Your task to perform on an android device: turn on bluetooth scan Image 0: 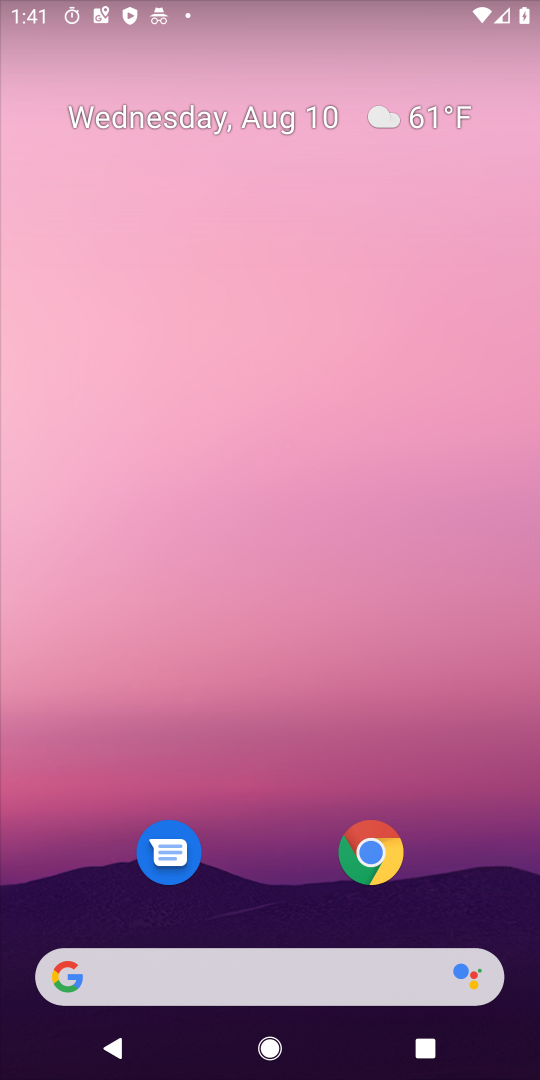
Step 0: drag from (241, 570) to (313, 25)
Your task to perform on an android device: turn on bluetooth scan Image 1: 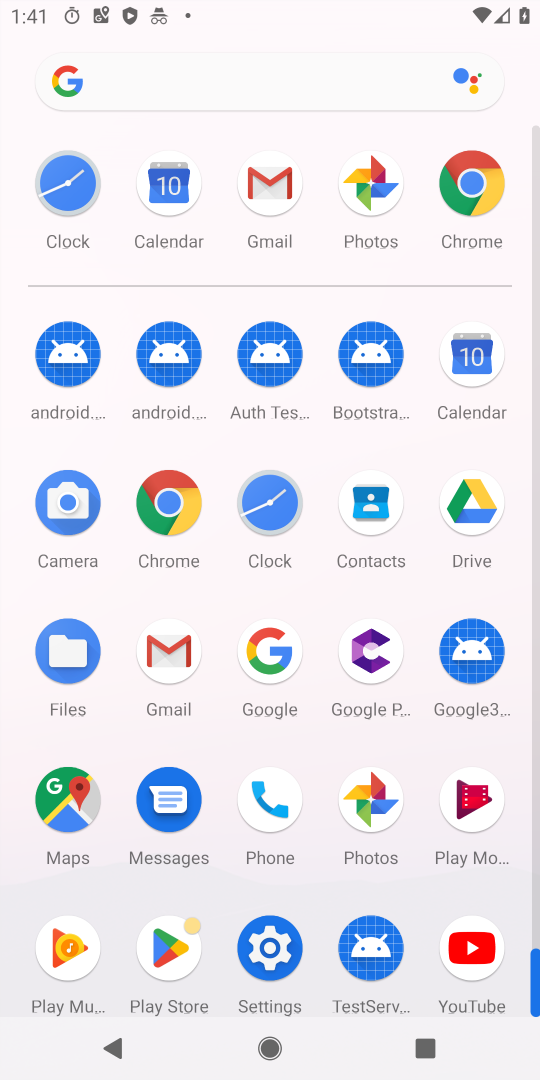
Step 1: click (272, 935)
Your task to perform on an android device: turn on bluetooth scan Image 2: 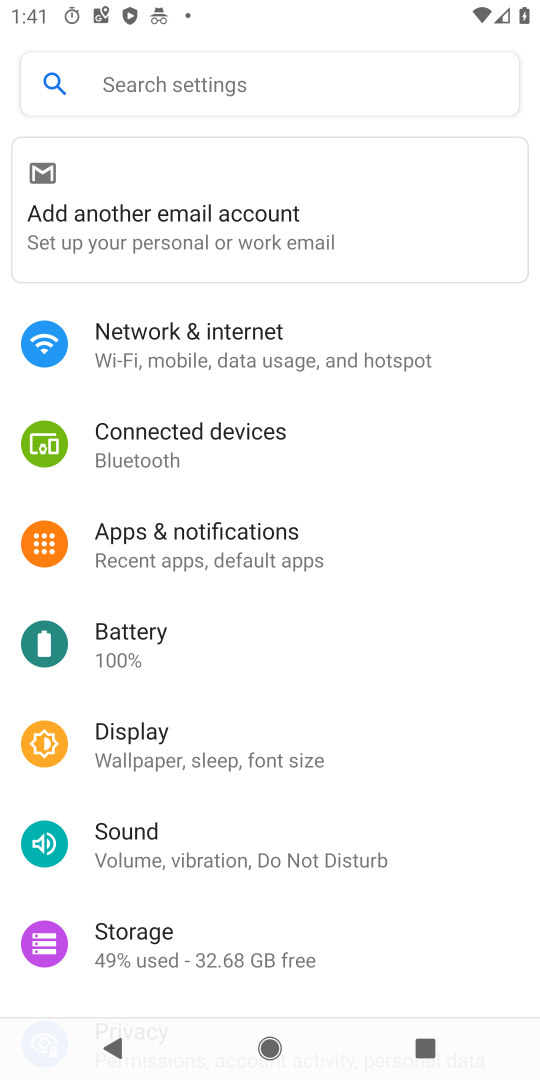
Step 2: drag from (340, 941) to (317, 399)
Your task to perform on an android device: turn on bluetooth scan Image 3: 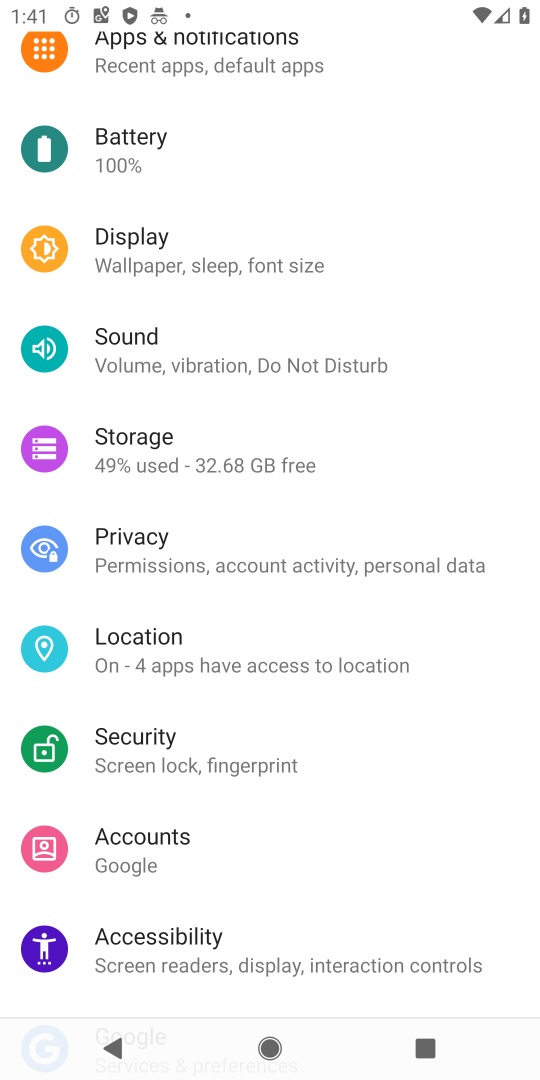
Step 3: click (158, 652)
Your task to perform on an android device: turn on bluetooth scan Image 4: 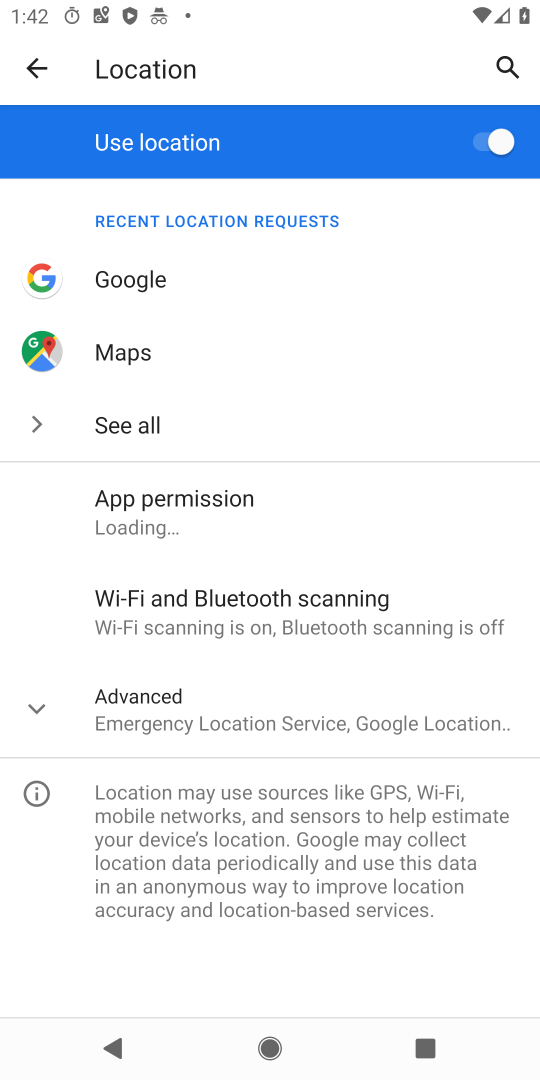
Step 4: click (179, 605)
Your task to perform on an android device: turn on bluetooth scan Image 5: 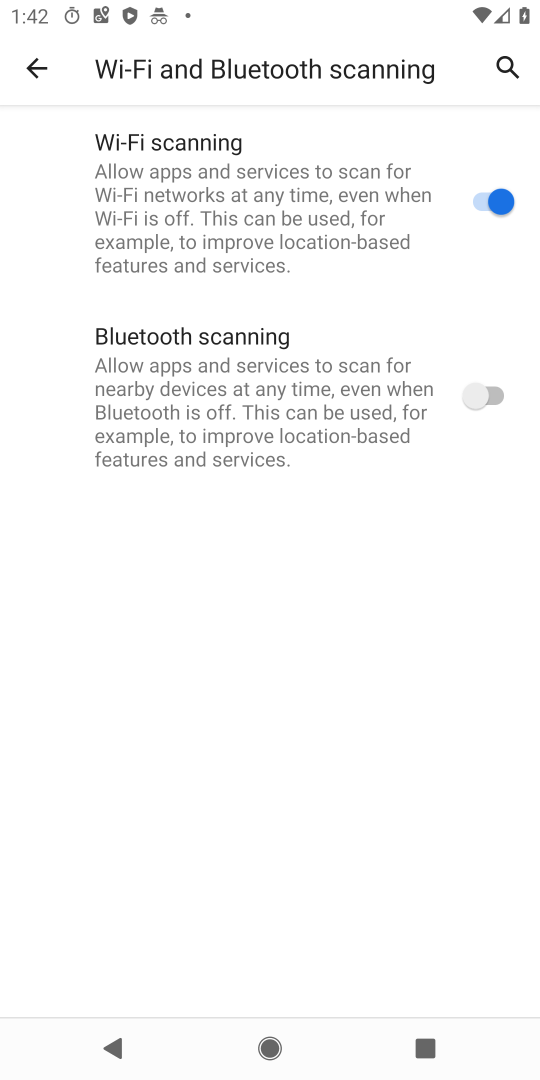
Step 5: click (475, 406)
Your task to perform on an android device: turn on bluetooth scan Image 6: 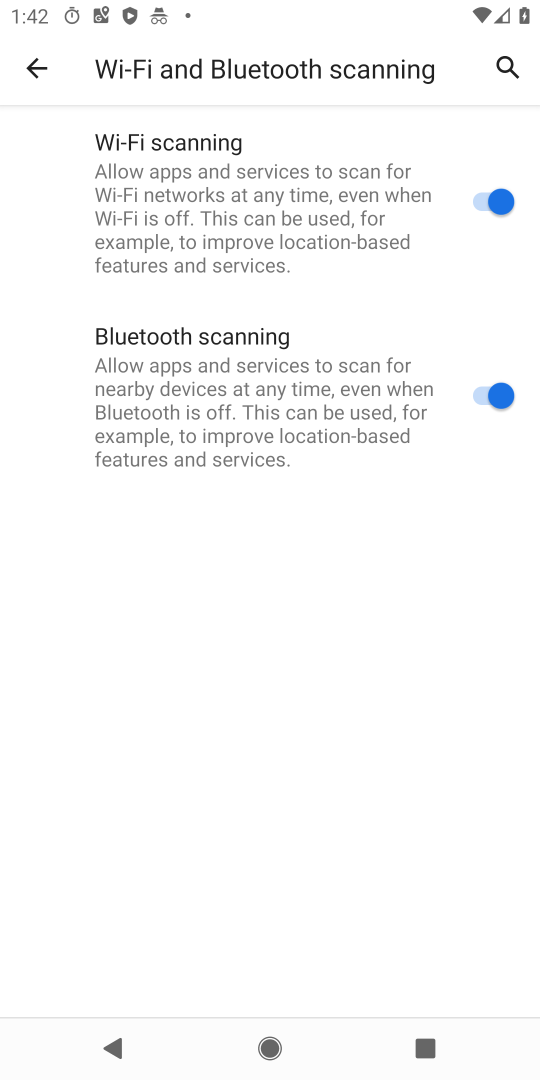
Step 6: task complete